Your task to perform on an android device: open app "Google Calendar" Image 0: 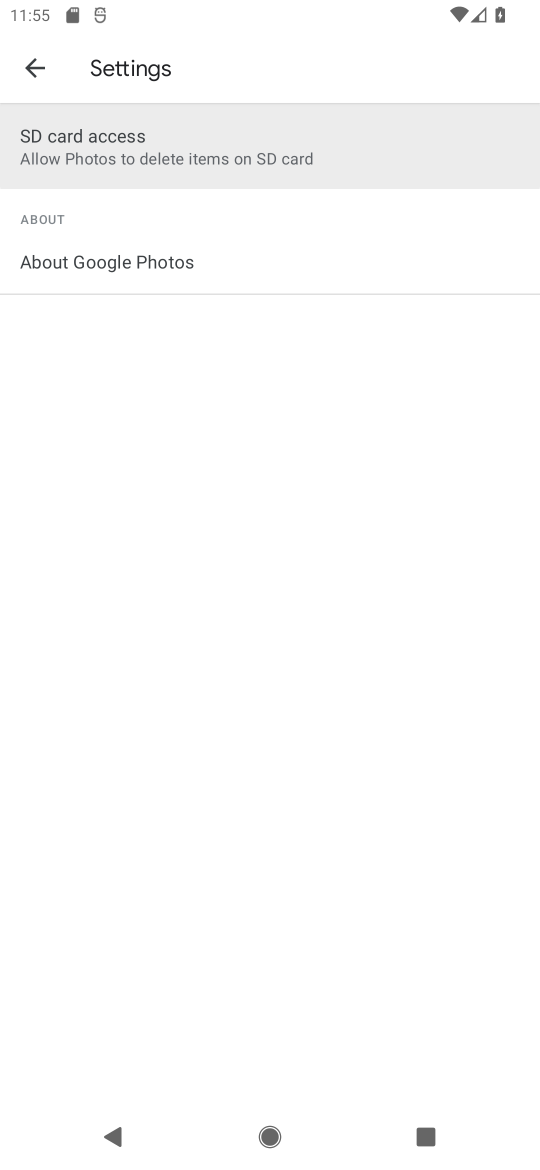
Step 0: press home button
Your task to perform on an android device: open app "Google Calendar" Image 1: 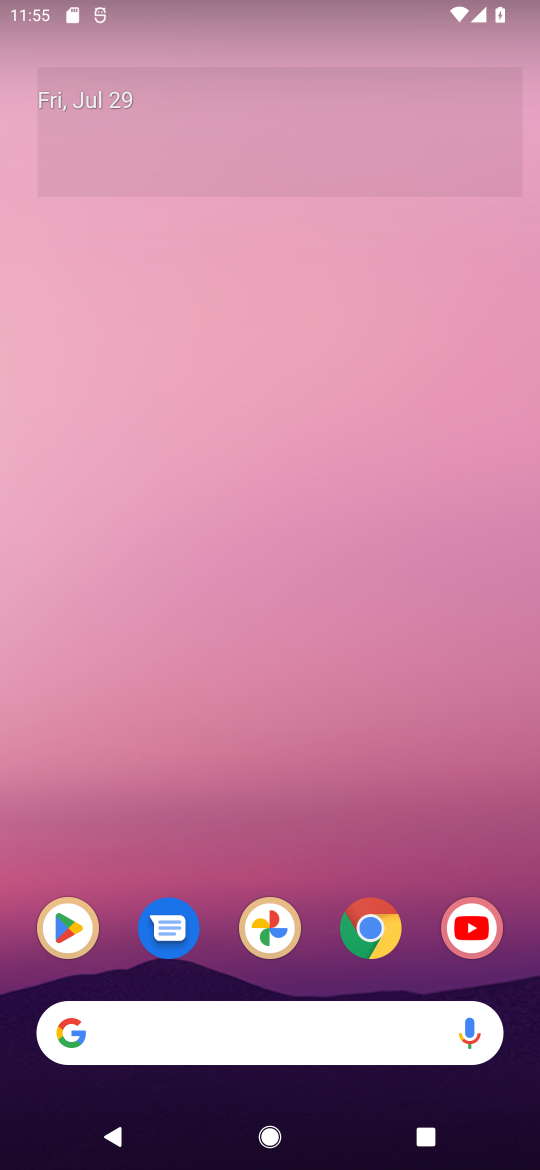
Step 1: drag from (375, 617) to (317, 0)
Your task to perform on an android device: open app "Google Calendar" Image 2: 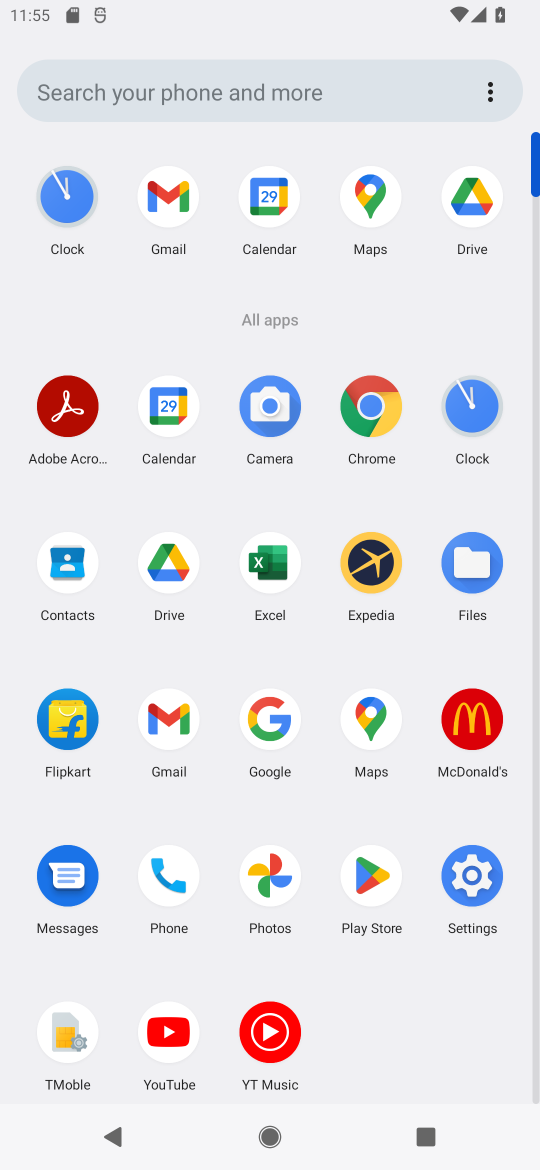
Step 2: click (390, 893)
Your task to perform on an android device: open app "Google Calendar" Image 3: 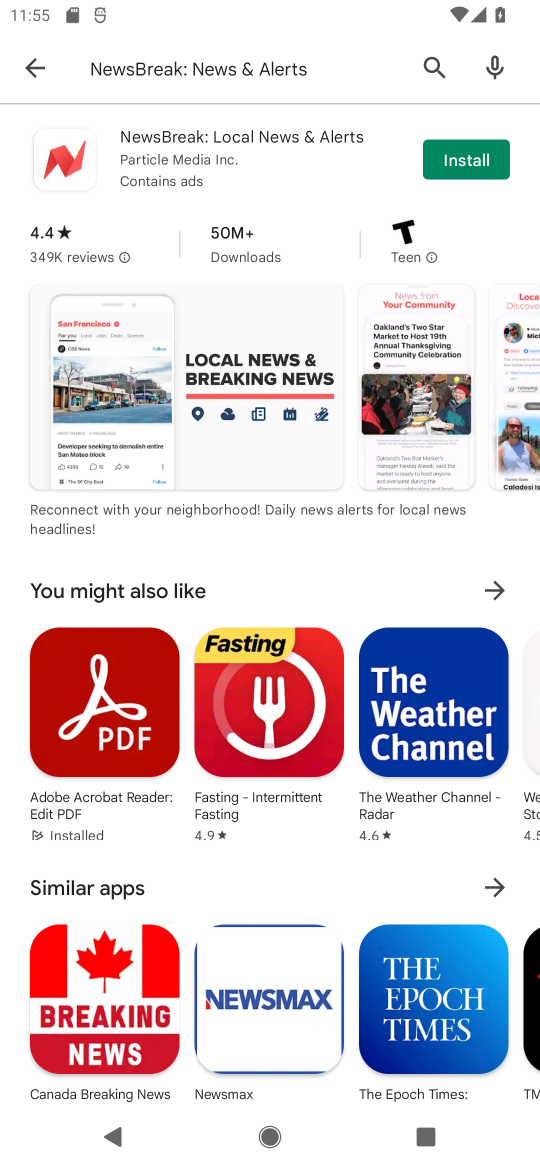
Step 3: click (176, 70)
Your task to perform on an android device: open app "Google Calendar" Image 4: 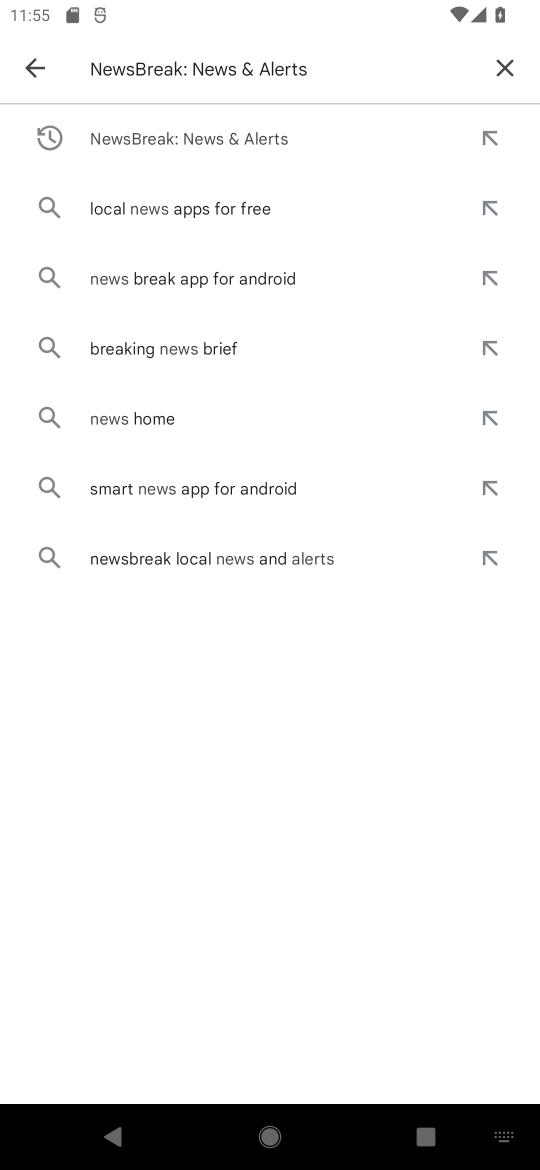
Step 4: click (509, 72)
Your task to perform on an android device: open app "Google Calendar" Image 5: 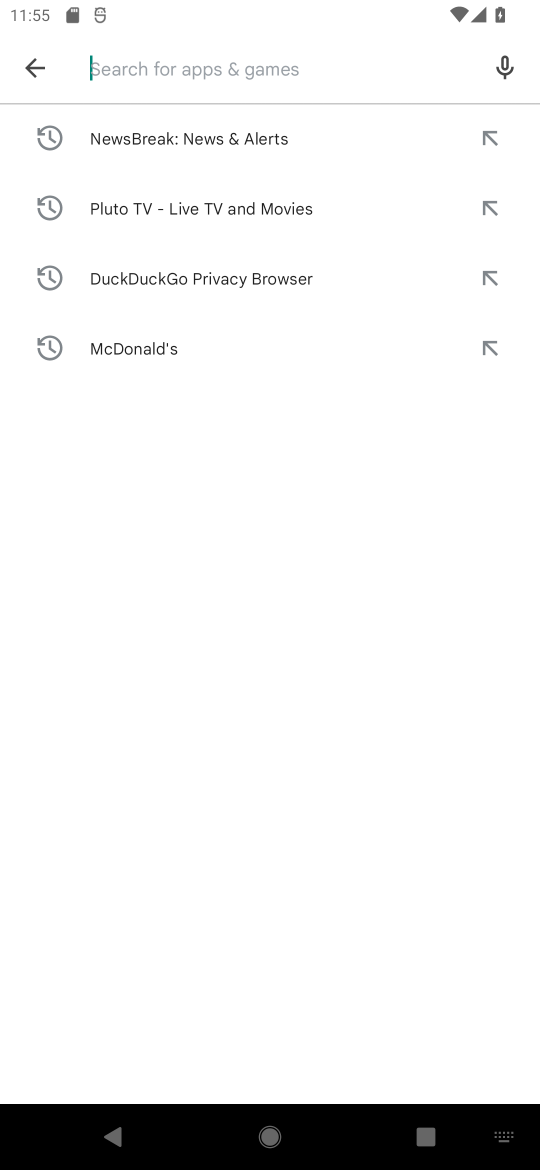
Step 5: type "Google Calendar"
Your task to perform on an android device: open app "Google Calendar" Image 6: 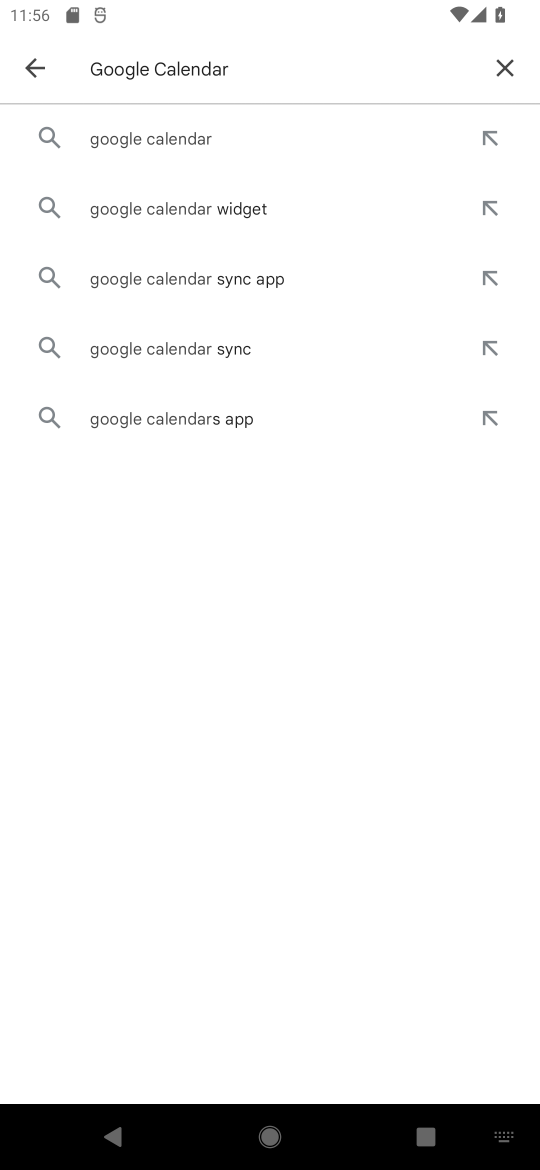
Step 6: press enter
Your task to perform on an android device: open app "Google Calendar" Image 7: 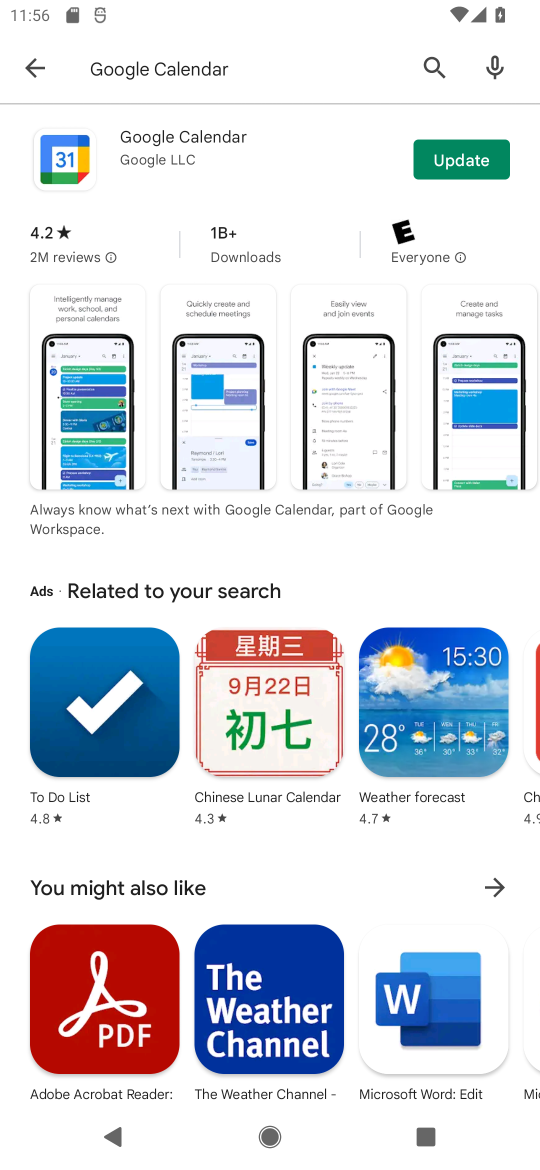
Step 7: click (127, 163)
Your task to perform on an android device: open app "Google Calendar" Image 8: 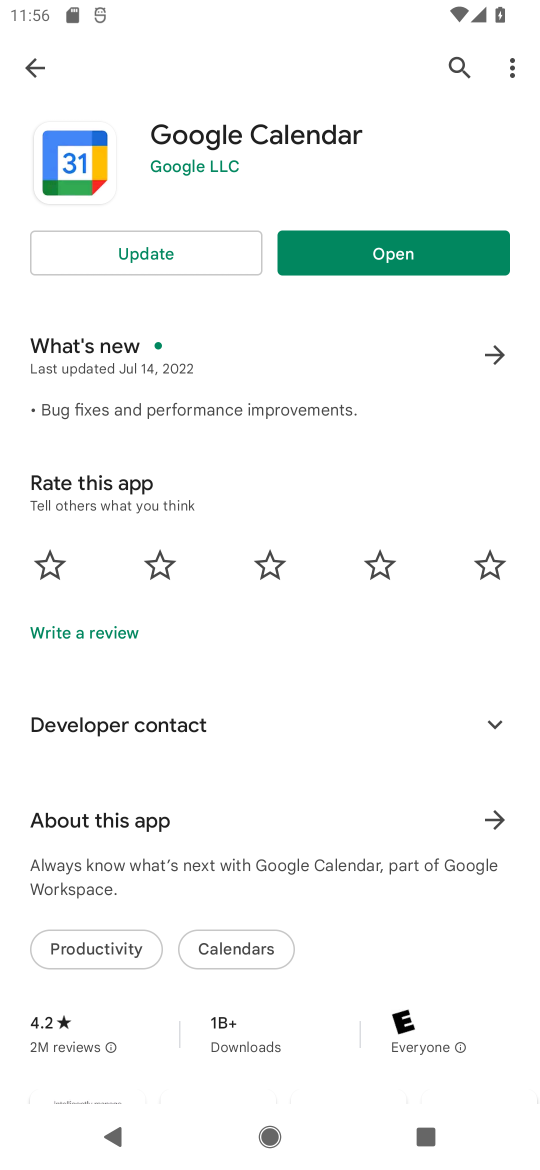
Step 8: click (404, 247)
Your task to perform on an android device: open app "Google Calendar" Image 9: 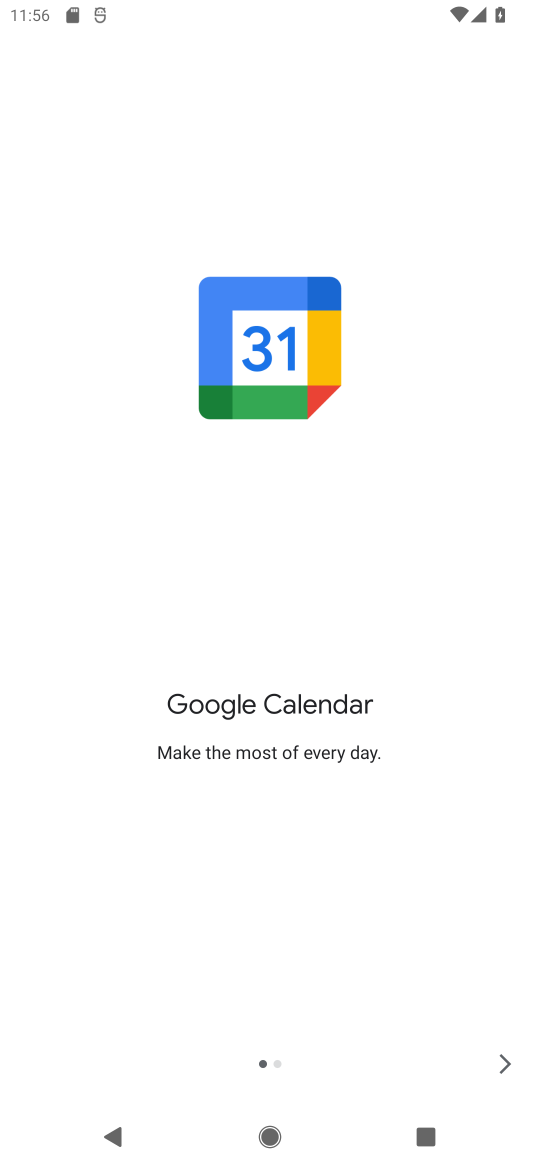
Step 9: click (499, 1051)
Your task to perform on an android device: open app "Google Calendar" Image 10: 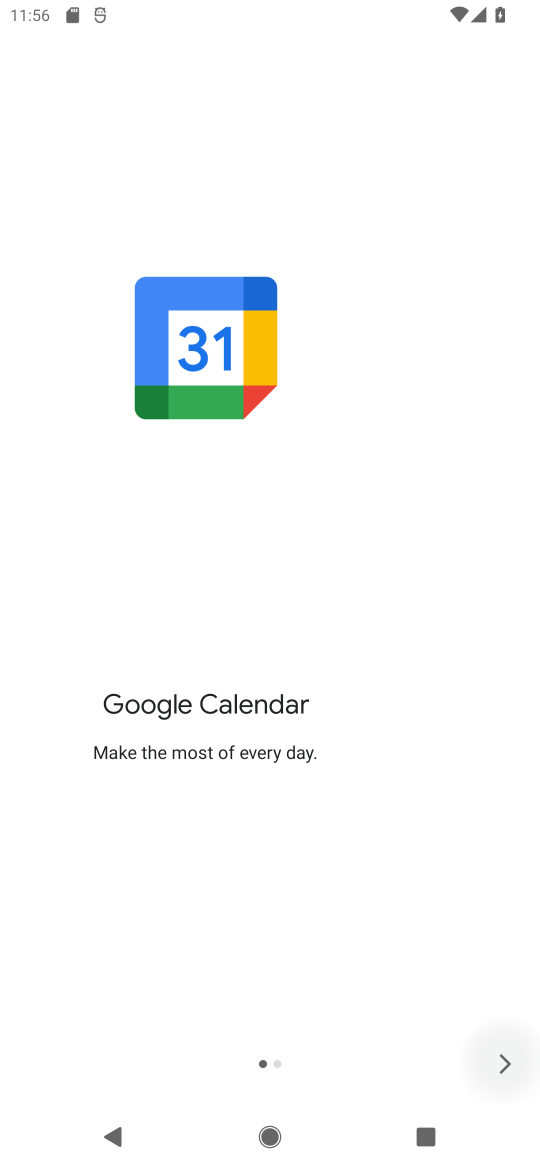
Step 10: click (499, 1051)
Your task to perform on an android device: open app "Google Calendar" Image 11: 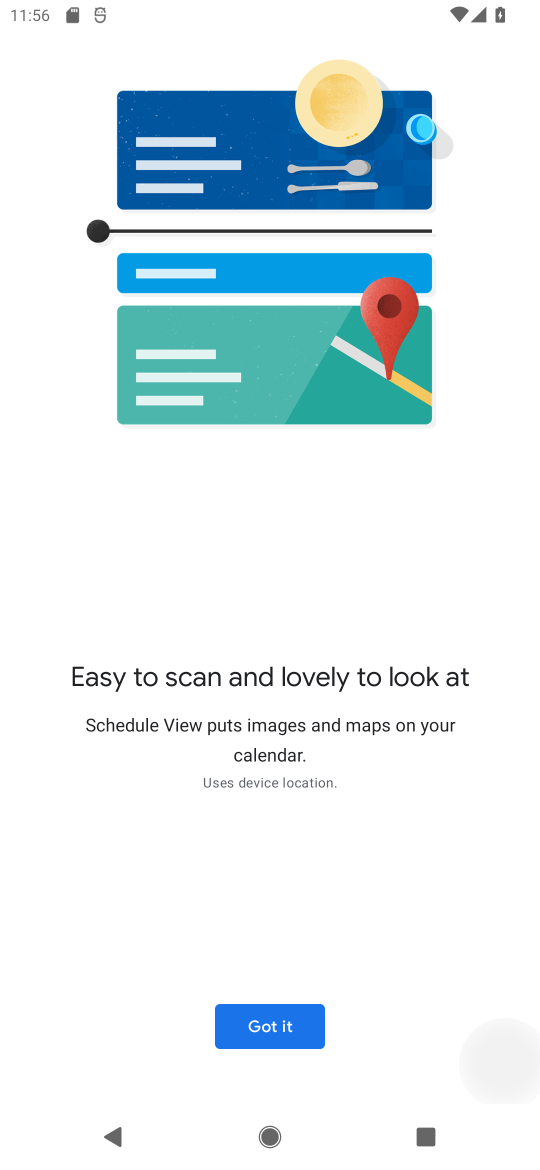
Step 11: click (499, 1051)
Your task to perform on an android device: open app "Google Calendar" Image 12: 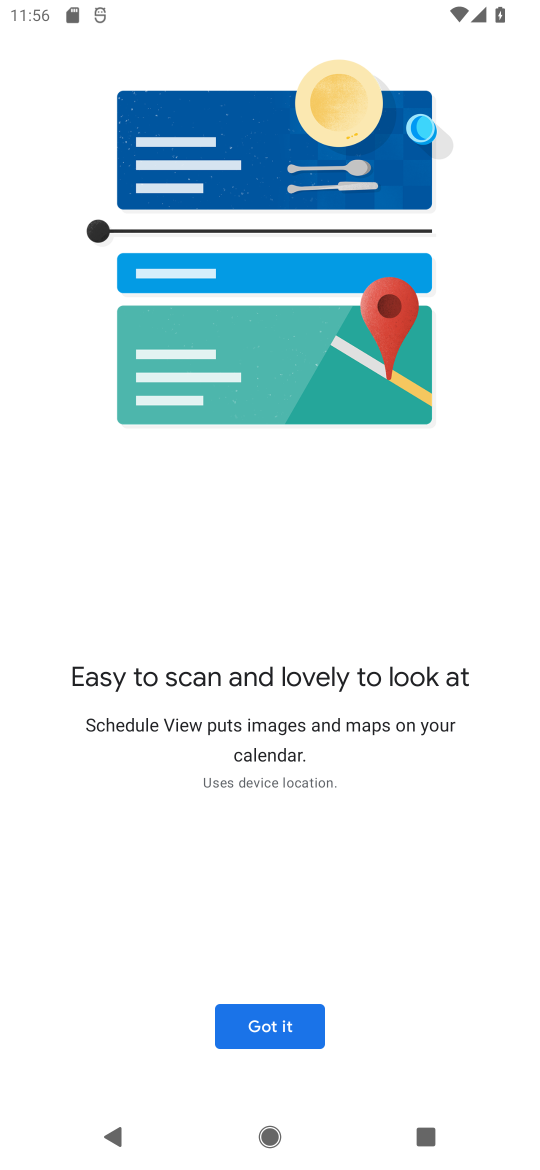
Step 12: click (304, 1029)
Your task to perform on an android device: open app "Google Calendar" Image 13: 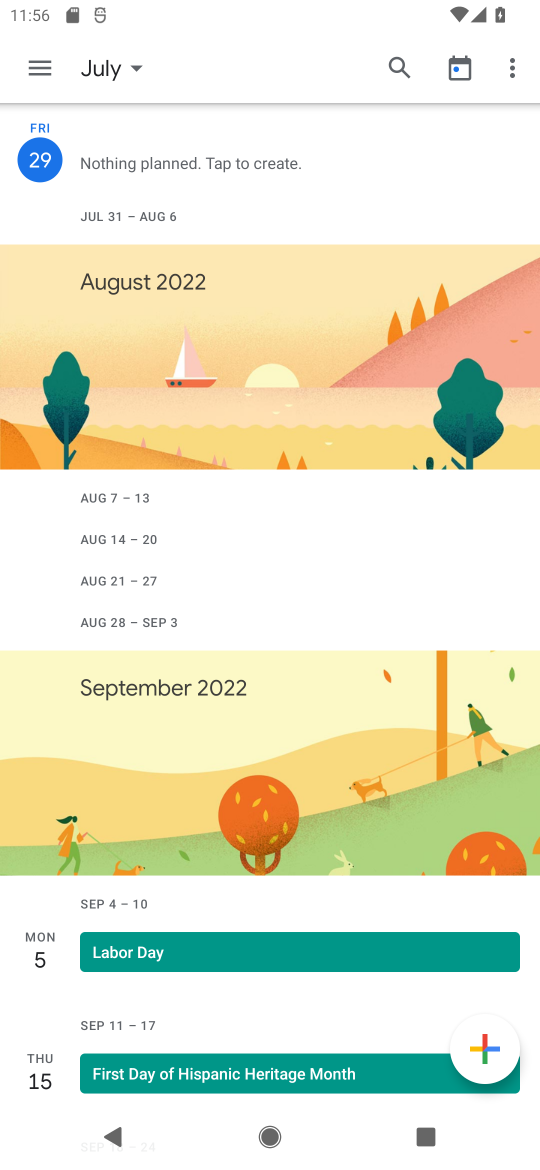
Step 13: task complete